Your task to perform on an android device: Open location settings Image 0: 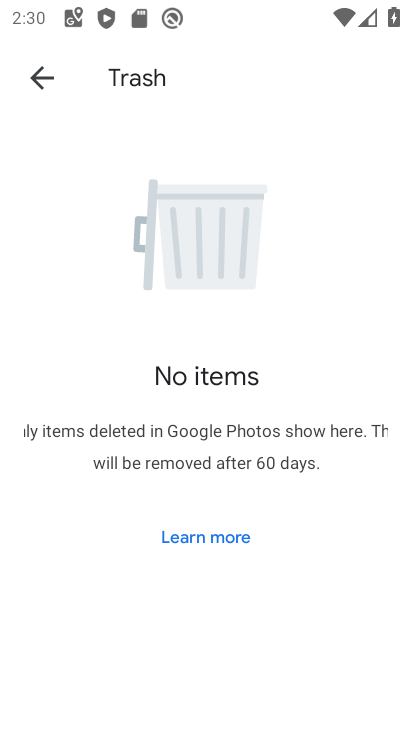
Step 0: press home button
Your task to perform on an android device: Open location settings Image 1: 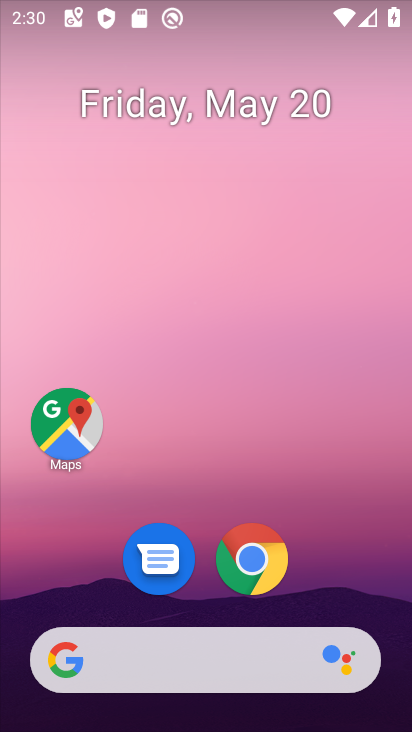
Step 1: drag from (181, 448) to (230, 19)
Your task to perform on an android device: Open location settings Image 2: 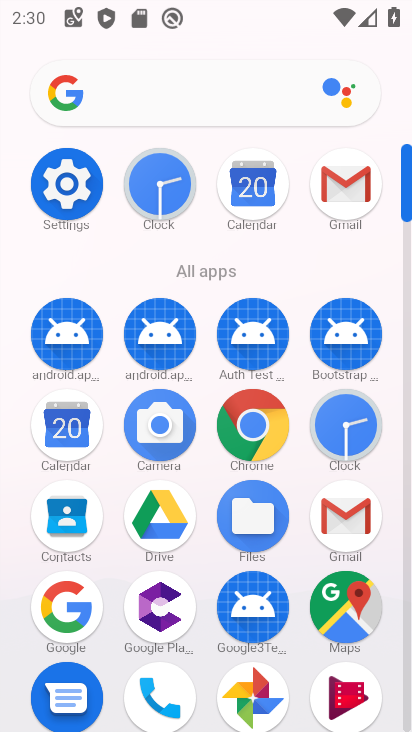
Step 2: click (77, 176)
Your task to perform on an android device: Open location settings Image 3: 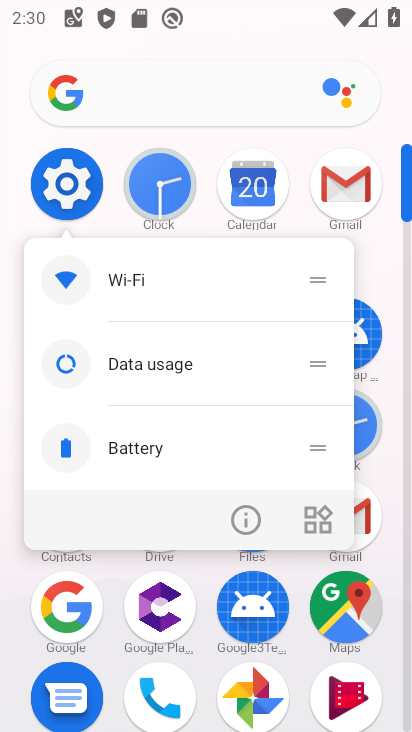
Step 3: click (76, 158)
Your task to perform on an android device: Open location settings Image 4: 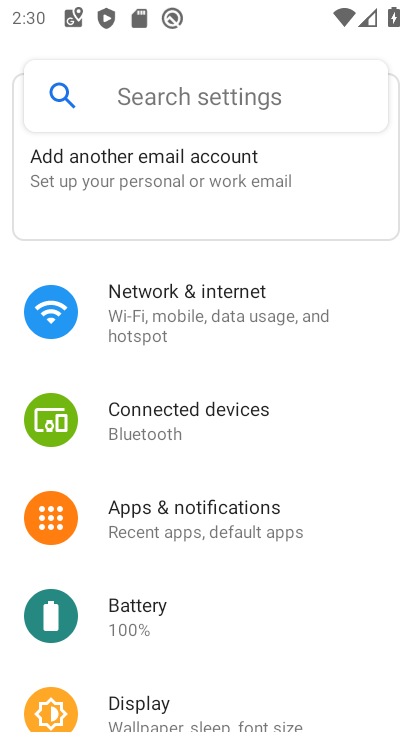
Step 4: drag from (219, 632) to (221, 184)
Your task to perform on an android device: Open location settings Image 5: 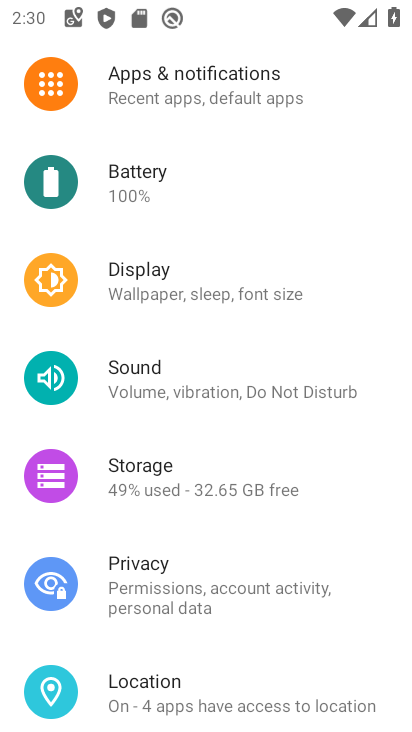
Step 5: click (214, 704)
Your task to perform on an android device: Open location settings Image 6: 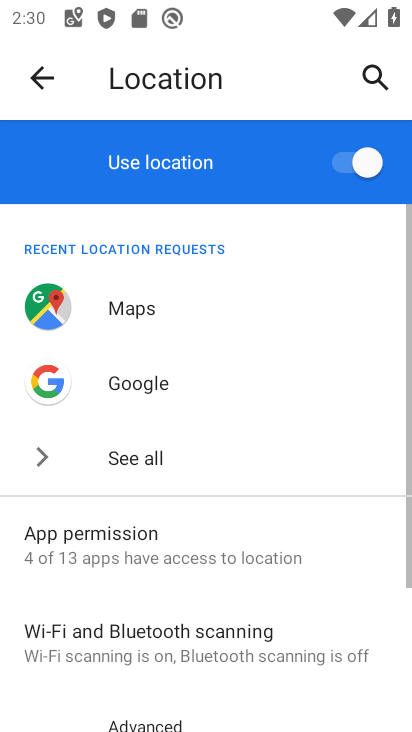
Step 6: task complete